Your task to perform on an android device: Show me productivity apps on the Play Store Image 0: 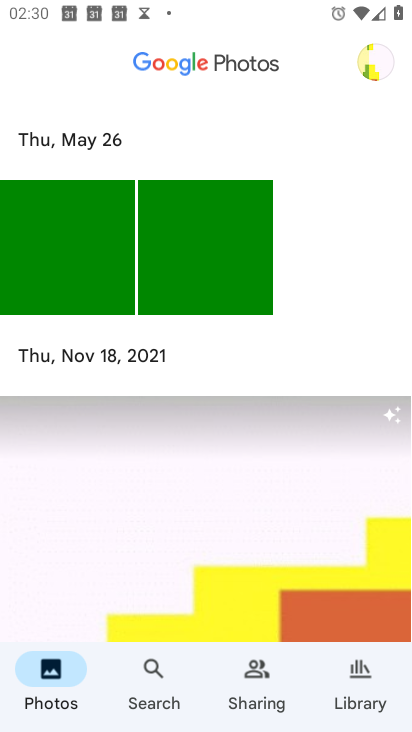
Step 0: press home button
Your task to perform on an android device: Show me productivity apps on the Play Store Image 1: 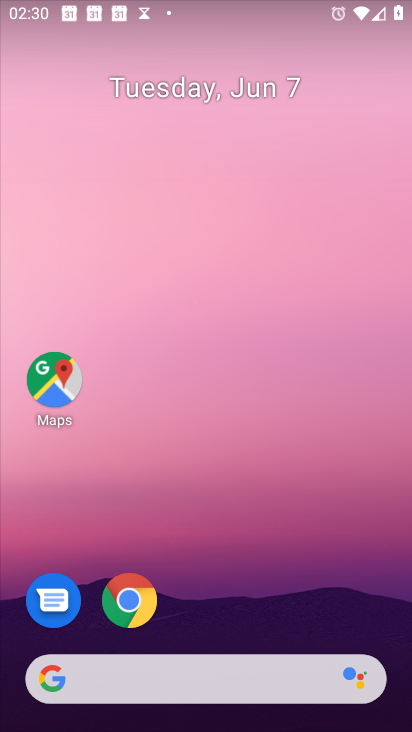
Step 1: drag from (255, 723) to (237, 136)
Your task to perform on an android device: Show me productivity apps on the Play Store Image 2: 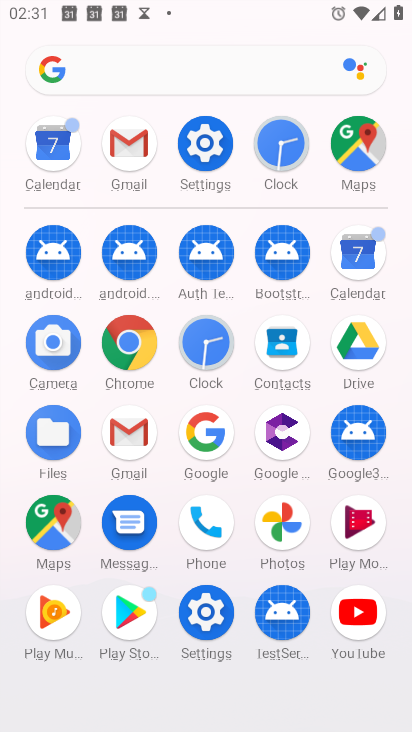
Step 2: click (122, 610)
Your task to perform on an android device: Show me productivity apps on the Play Store Image 3: 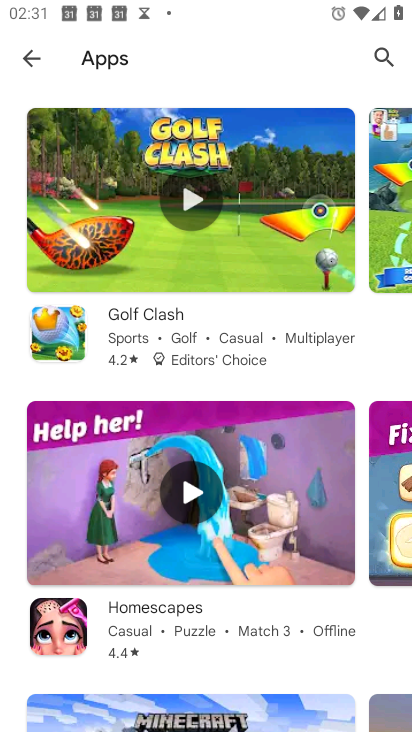
Step 3: click (35, 57)
Your task to perform on an android device: Show me productivity apps on the Play Store Image 4: 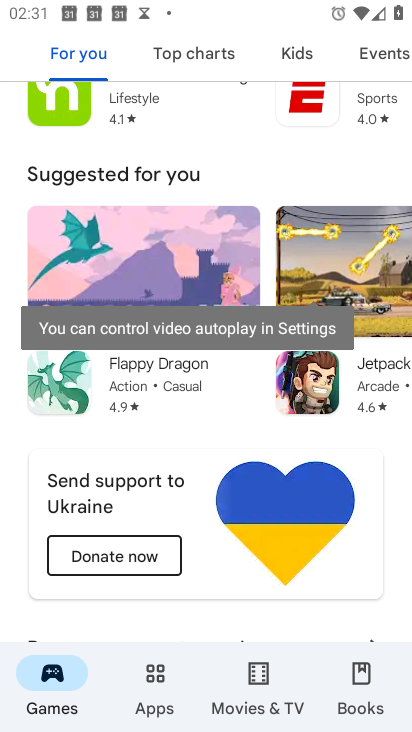
Step 4: click (154, 677)
Your task to perform on an android device: Show me productivity apps on the Play Store Image 5: 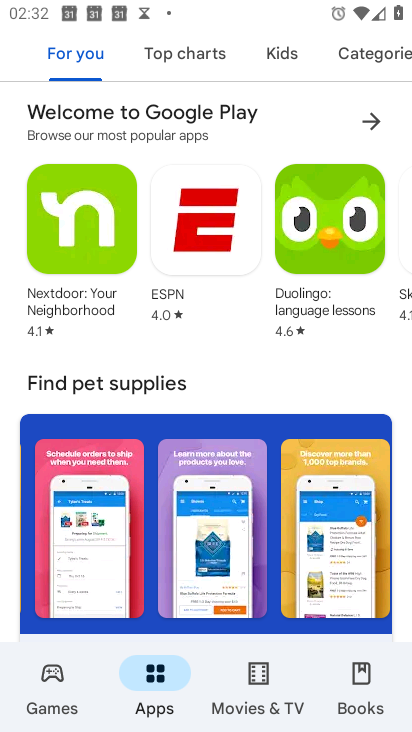
Step 5: click (375, 55)
Your task to perform on an android device: Show me productivity apps on the Play Store Image 6: 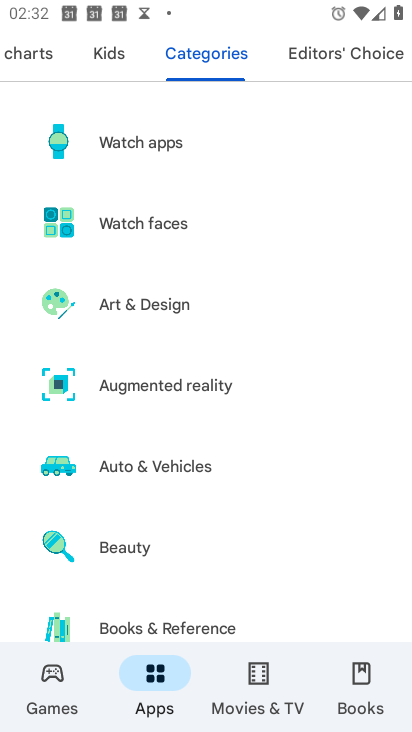
Step 6: drag from (145, 604) to (147, 245)
Your task to perform on an android device: Show me productivity apps on the Play Store Image 7: 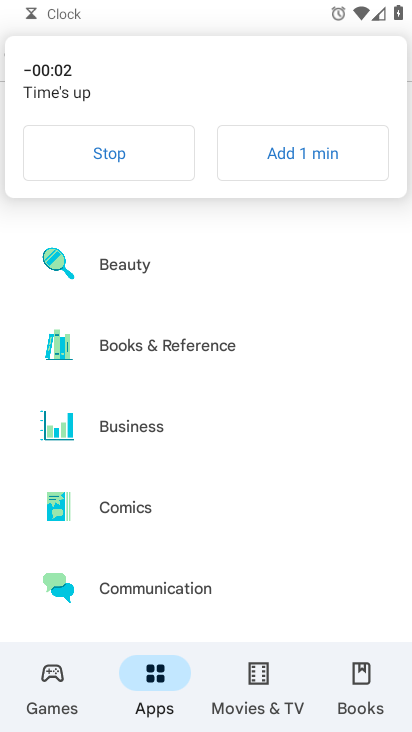
Step 7: drag from (153, 606) to (187, 329)
Your task to perform on an android device: Show me productivity apps on the Play Store Image 8: 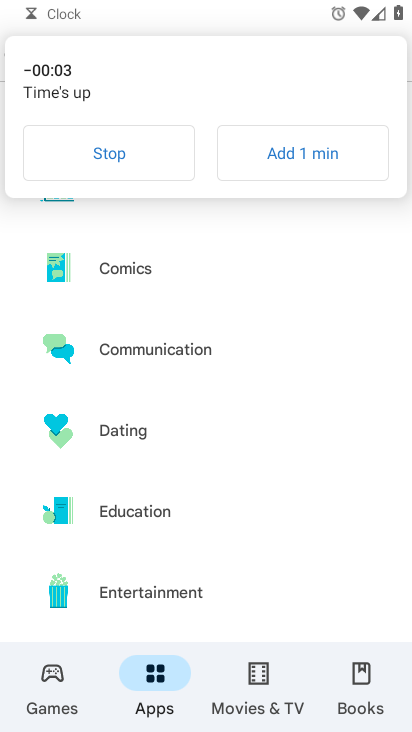
Step 8: click (111, 150)
Your task to perform on an android device: Show me productivity apps on the Play Store Image 9: 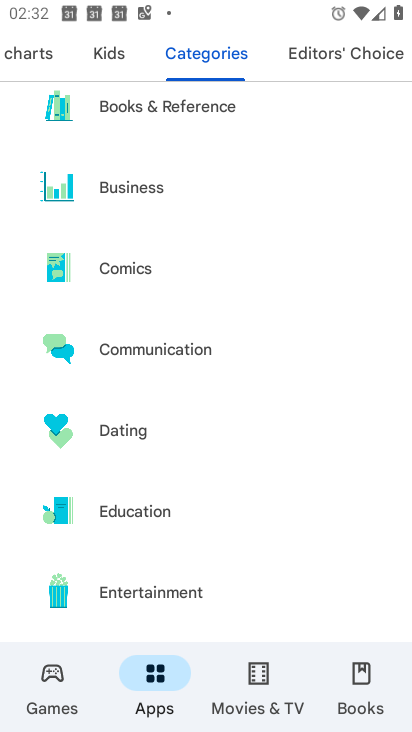
Step 9: drag from (181, 611) to (188, 288)
Your task to perform on an android device: Show me productivity apps on the Play Store Image 10: 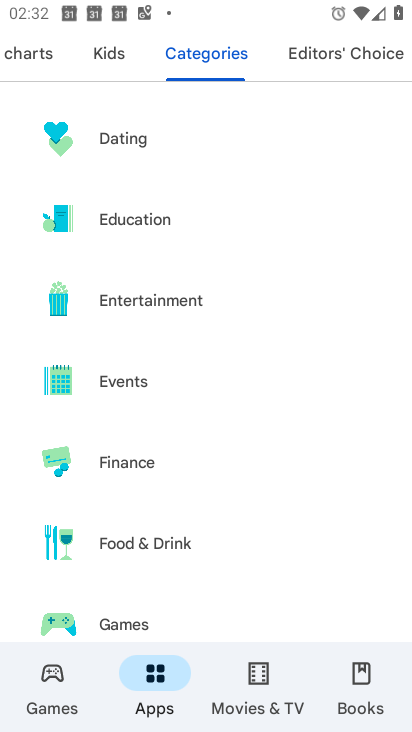
Step 10: drag from (159, 598) to (161, 265)
Your task to perform on an android device: Show me productivity apps on the Play Store Image 11: 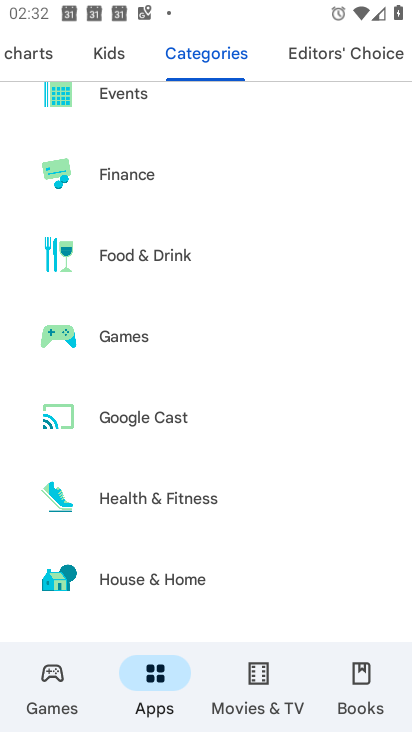
Step 11: drag from (171, 589) to (183, 252)
Your task to perform on an android device: Show me productivity apps on the Play Store Image 12: 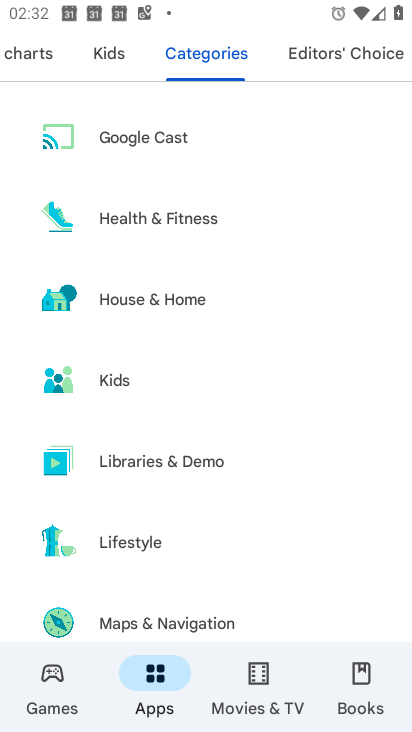
Step 12: drag from (162, 605) to (166, 286)
Your task to perform on an android device: Show me productivity apps on the Play Store Image 13: 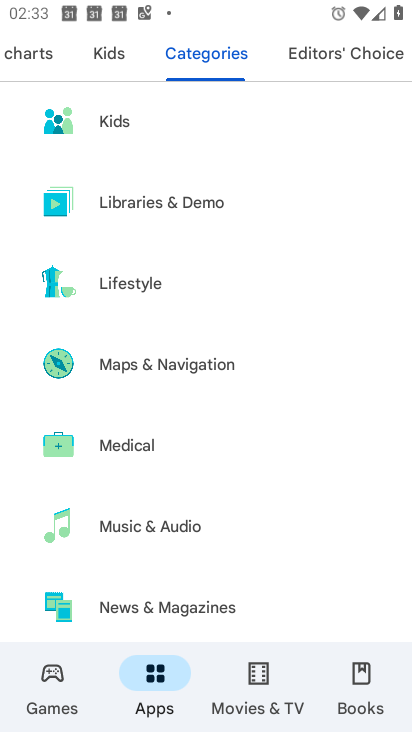
Step 13: drag from (164, 602) to (166, 252)
Your task to perform on an android device: Show me productivity apps on the Play Store Image 14: 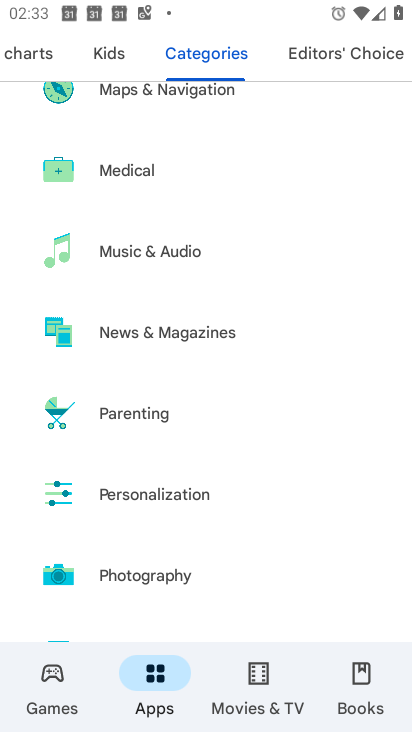
Step 14: drag from (138, 521) to (137, 284)
Your task to perform on an android device: Show me productivity apps on the Play Store Image 15: 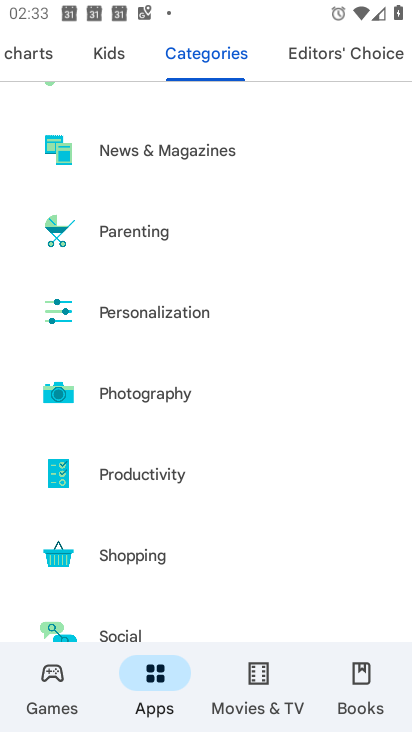
Step 15: click (147, 477)
Your task to perform on an android device: Show me productivity apps on the Play Store Image 16: 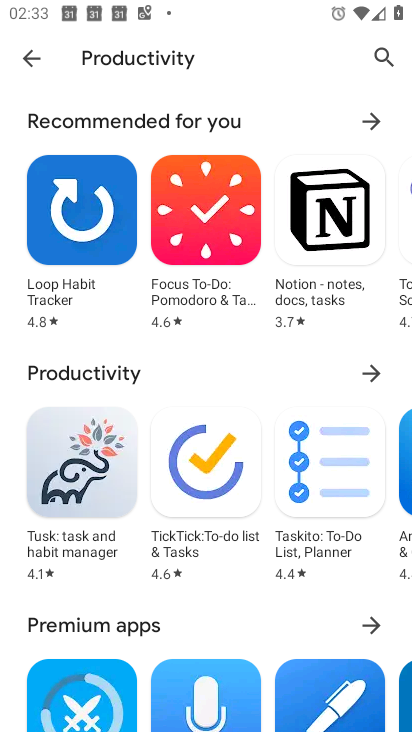
Step 16: task complete